Your task to perform on an android device: toggle sleep mode Image 0: 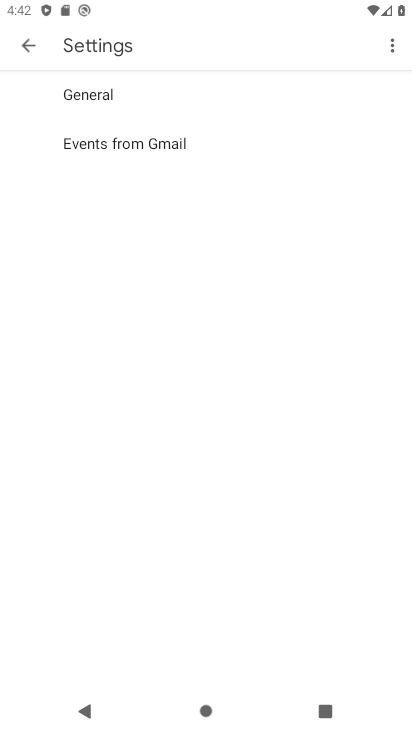
Step 0: press home button
Your task to perform on an android device: toggle sleep mode Image 1: 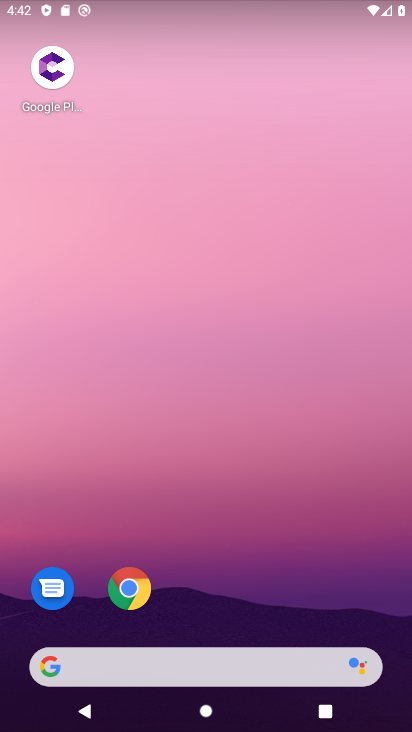
Step 1: drag from (262, 593) to (136, 73)
Your task to perform on an android device: toggle sleep mode Image 2: 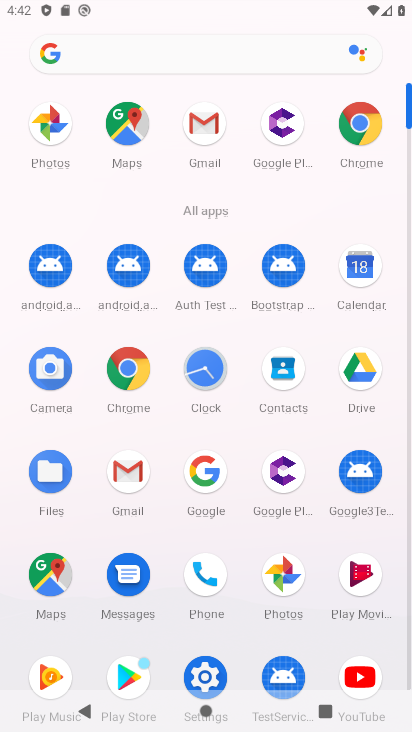
Step 2: click (204, 670)
Your task to perform on an android device: toggle sleep mode Image 3: 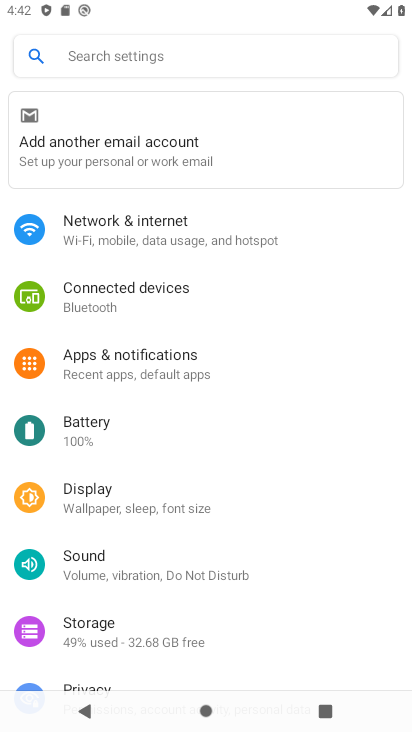
Step 3: click (181, 510)
Your task to perform on an android device: toggle sleep mode Image 4: 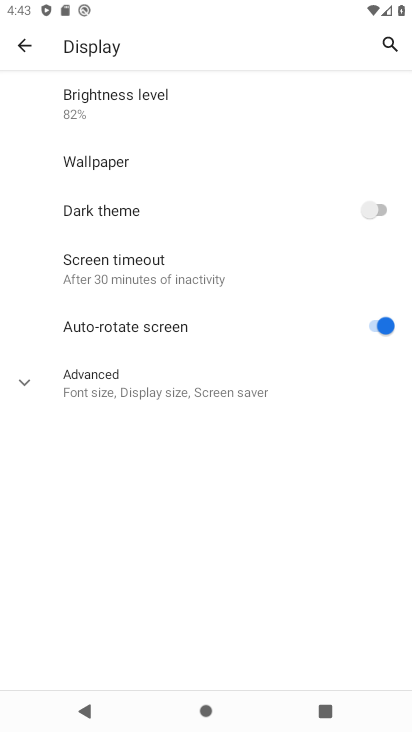
Step 4: click (242, 389)
Your task to perform on an android device: toggle sleep mode Image 5: 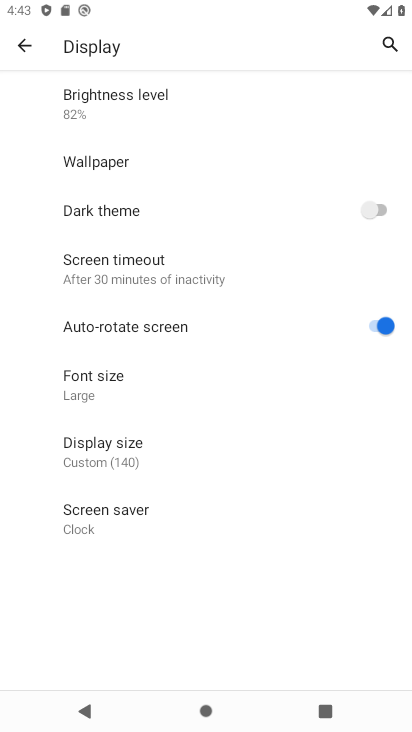
Step 5: task complete